Your task to perform on an android device: turn pop-ups off in chrome Image 0: 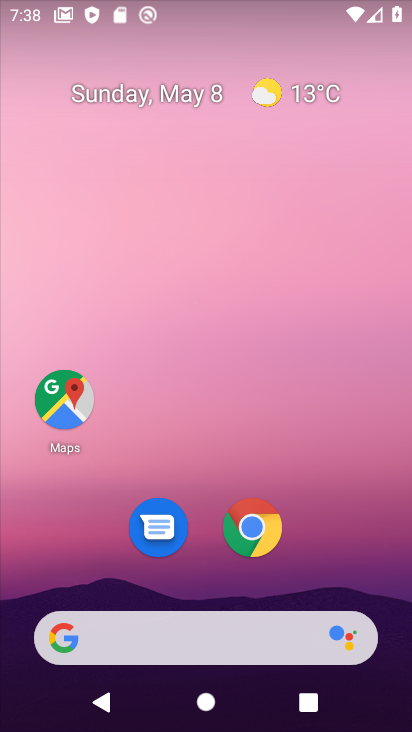
Step 0: drag from (397, 518) to (384, 194)
Your task to perform on an android device: turn pop-ups off in chrome Image 1: 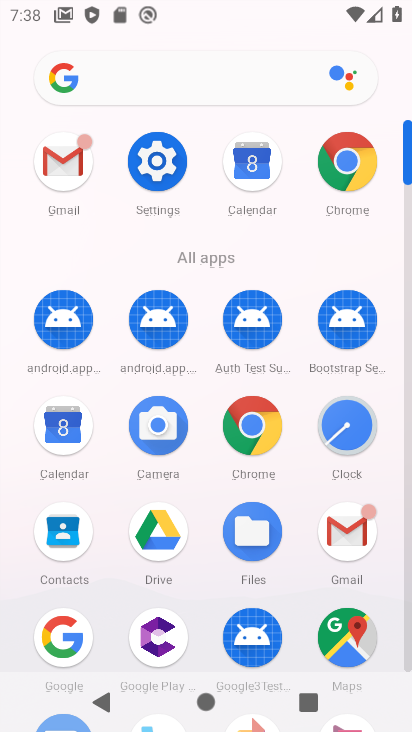
Step 1: click (352, 167)
Your task to perform on an android device: turn pop-ups off in chrome Image 2: 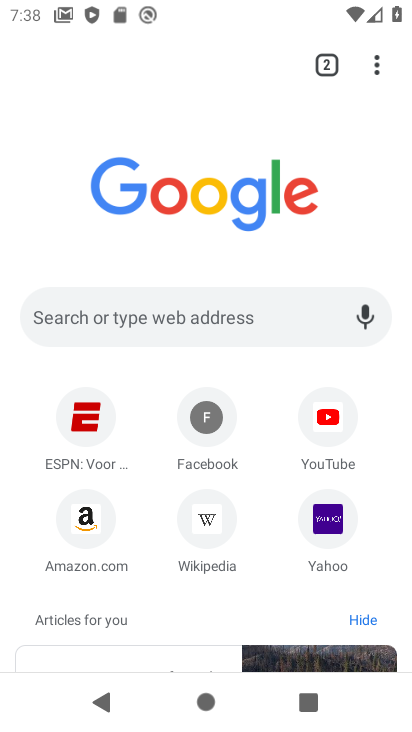
Step 2: click (374, 66)
Your task to perform on an android device: turn pop-ups off in chrome Image 3: 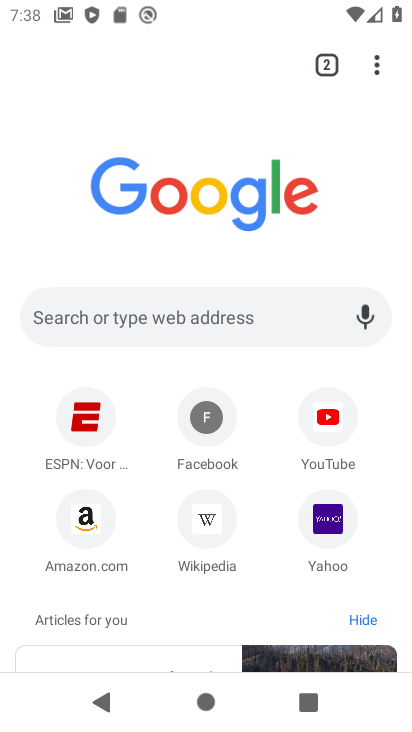
Step 3: click (370, 70)
Your task to perform on an android device: turn pop-ups off in chrome Image 4: 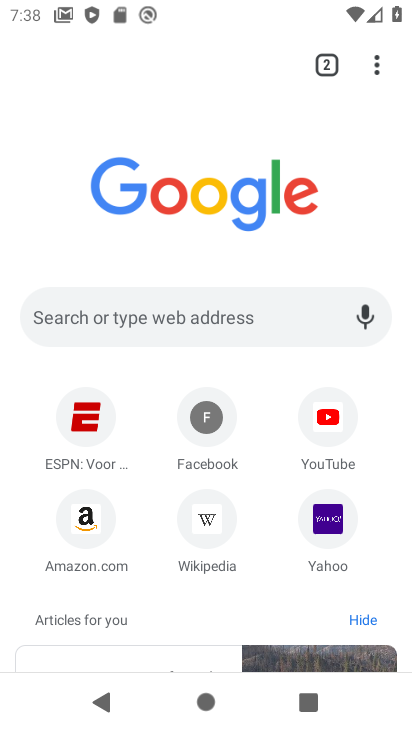
Step 4: drag from (303, 147) to (168, 320)
Your task to perform on an android device: turn pop-ups off in chrome Image 5: 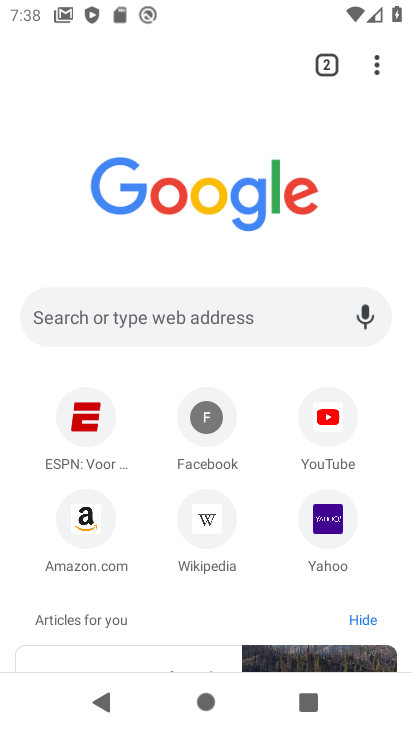
Step 5: drag from (376, 76) to (189, 557)
Your task to perform on an android device: turn pop-ups off in chrome Image 6: 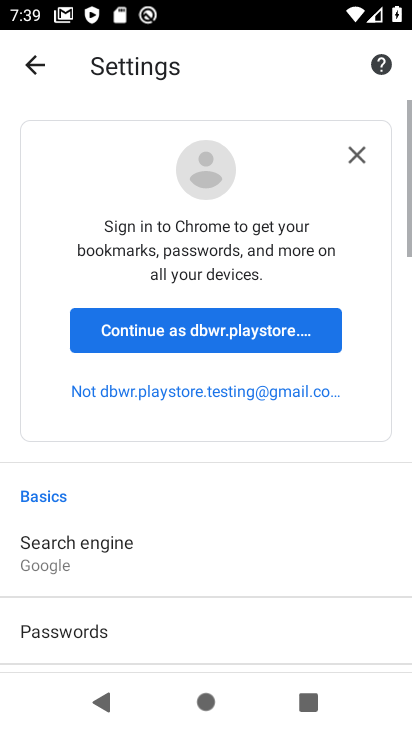
Step 6: drag from (192, 560) to (205, 219)
Your task to perform on an android device: turn pop-ups off in chrome Image 7: 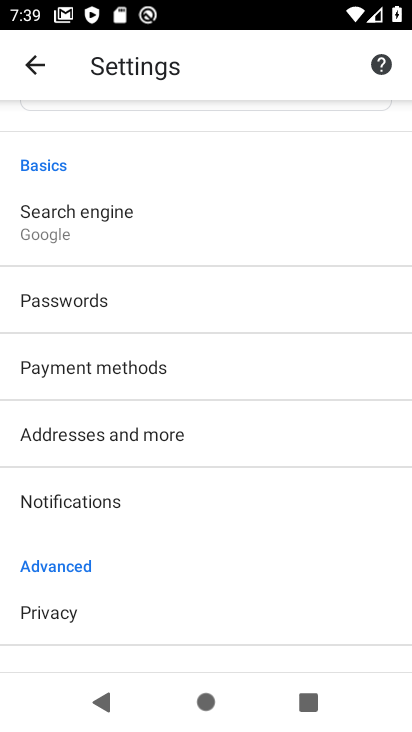
Step 7: drag from (133, 550) to (179, 176)
Your task to perform on an android device: turn pop-ups off in chrome Image 8: 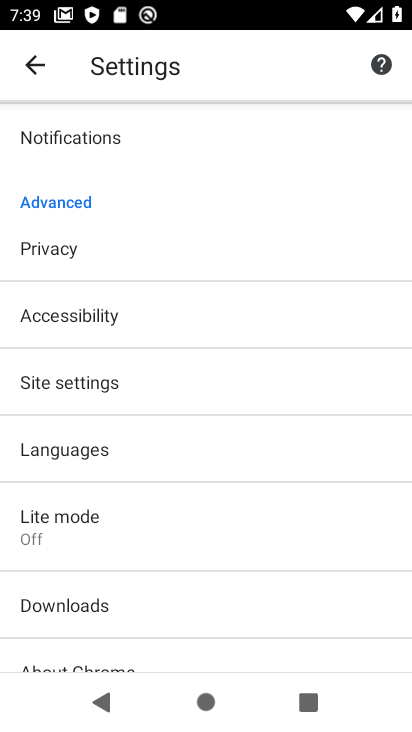
Step 8: click (93, 384)
Your task to perform on an android device: turn pop-ups off in chrome Image 9: 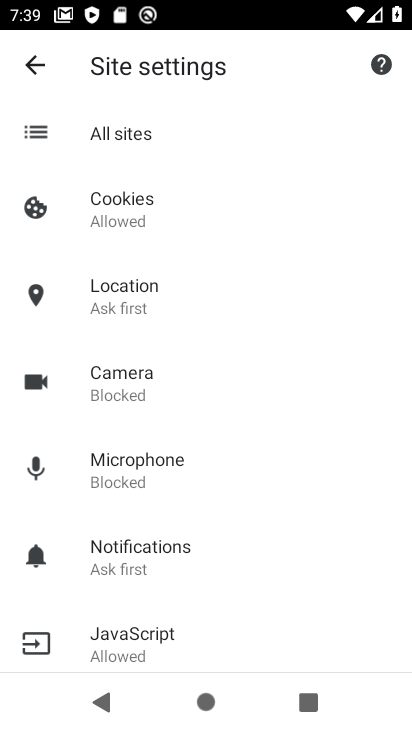
Step 9: drag from (125, 540) to (159, 386)
Your task to perform on an android device: turn pop-ups off in chrome Image 10: 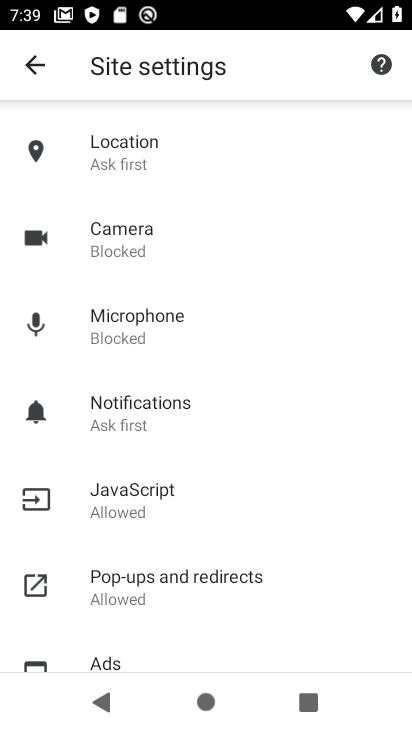
Step 10: click (146, 577)
Your task to perform on an android device: turn pop-ups off in chrome Image 11: 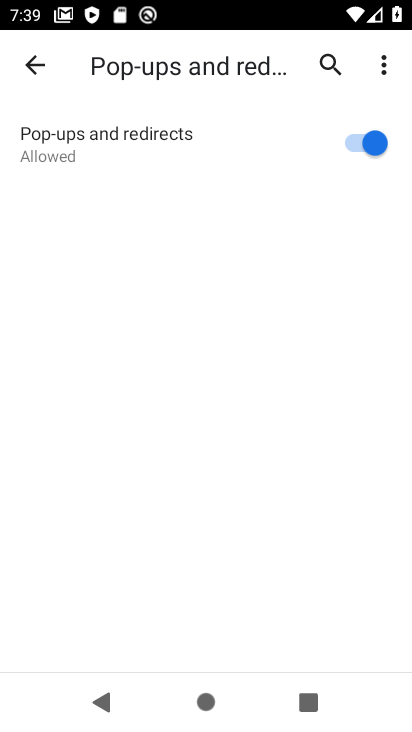
Step 11: click (366, 136)
Your task to perform on an android device: turn pop-ups off in chrome Image 12: 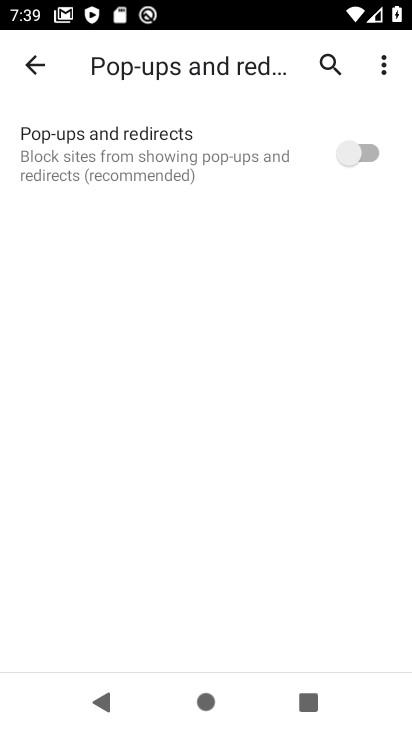
Step 12: task complete